Your task to perform on an android device: turn on the 12-hour format for clock Image 0: 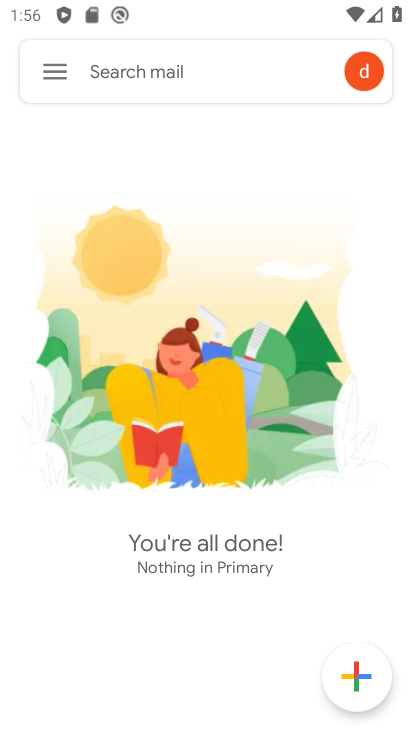
Step 0: press home button
Your task to perform on an android device: turn on the 12-hour format for clock Image 1: 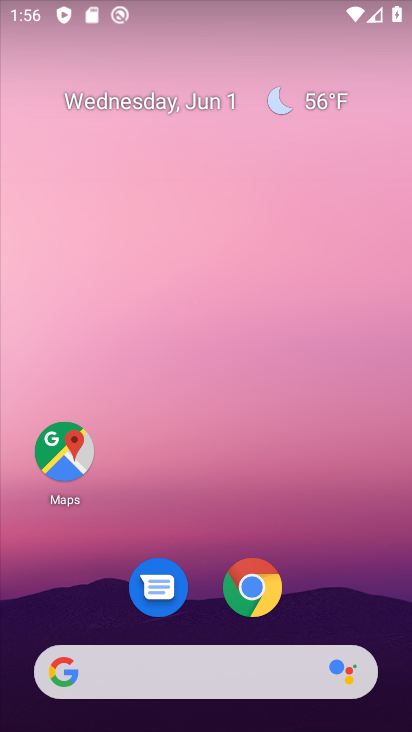
Step 1: drag from (335, 503) to (331, 92)
Your task to perform on an android device: turn on the 12-hour format for clock Image 2: 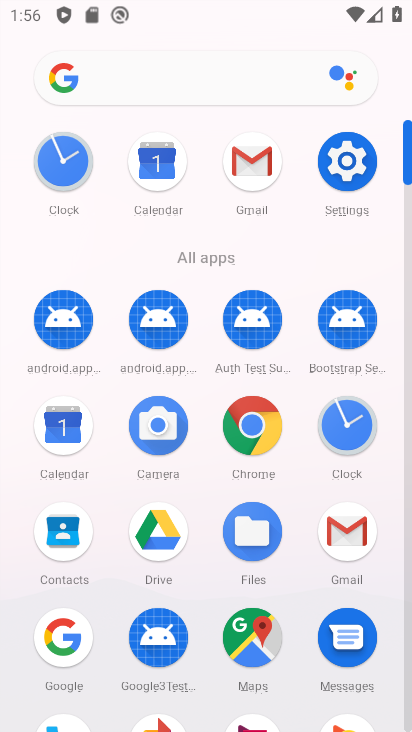
Step 2: click (59, 148)
Your task to perform on an android device: turn on the 12-hour format for clock Image 3: 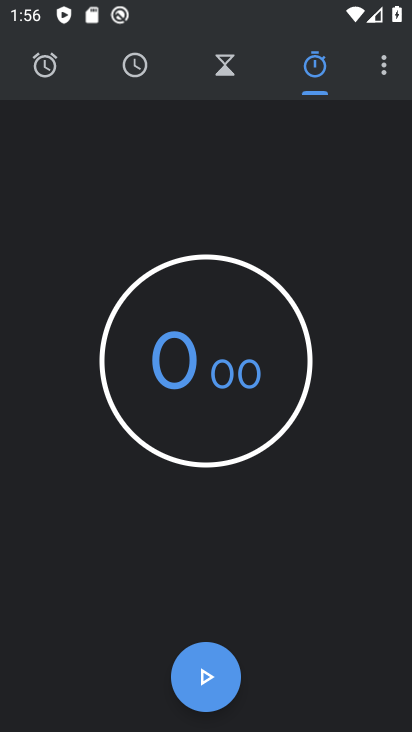
Step 3: click (387, 69)
Your task to perform on an android device: turn on the 12-hour format for clock Image 4: 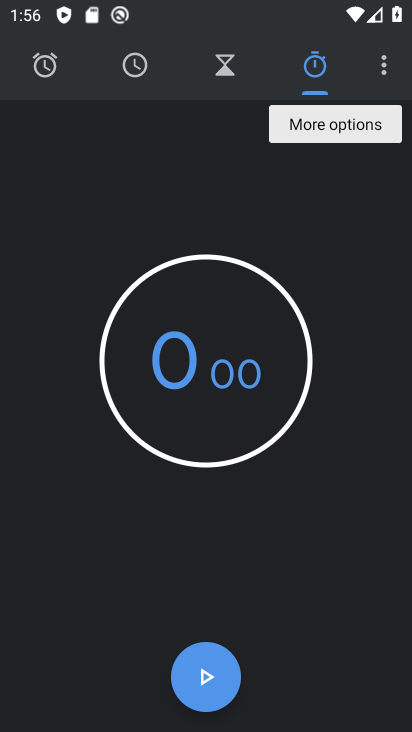
Step 4: click (387, 70)
Your task to perform on an android device: turn on the 12-hour format for clock Image 5: 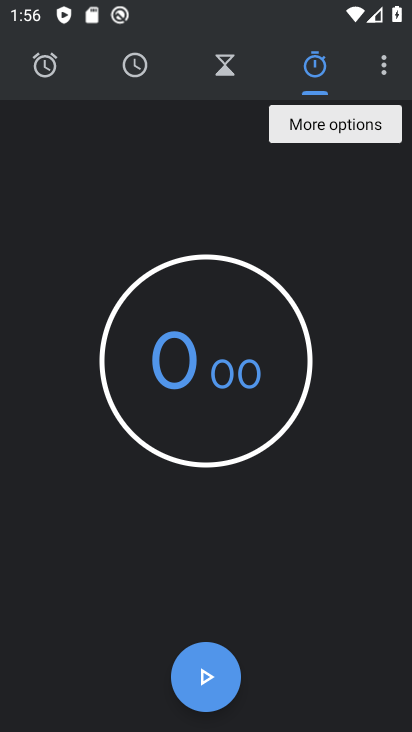
Step 5: click (353, 123)
Your task to perform on an android device: turn on the 12-hour format for clock Image 6: 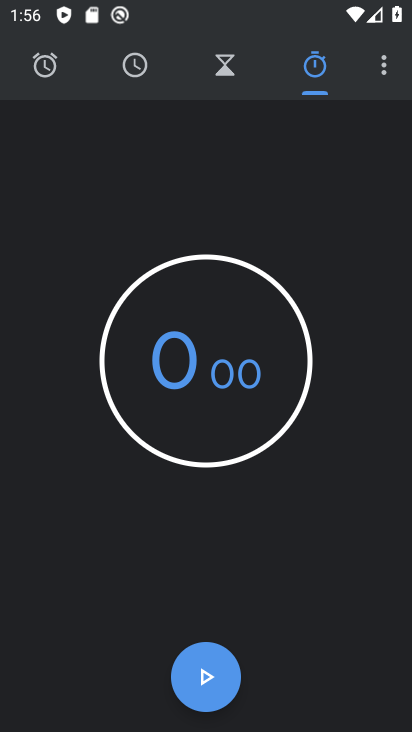
Step 6: click (388, 67)
Your task to perform on an android device: turn on the 12-hour format for clock Image 7: 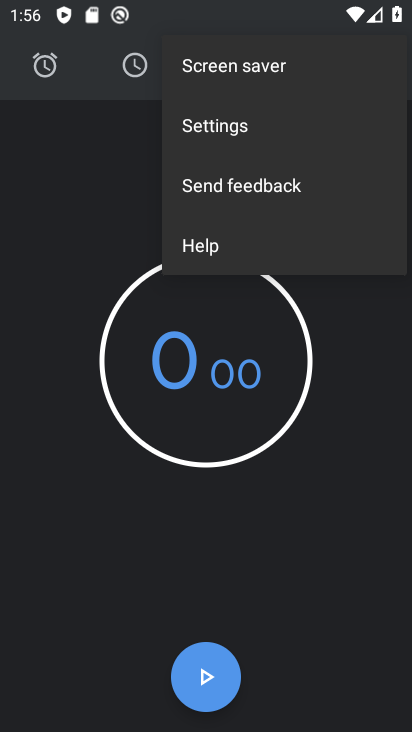
Step 7: click (243, 130)
Your task to perform on an android device: turn on the 12-hour format for clock Image 8: 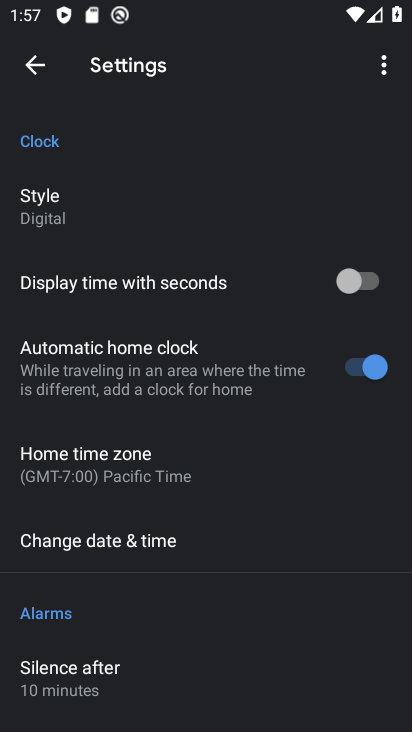
Step 8: click (177, 547)
Your task to perform on an android device: turn on the 12-hour format for clock Image 9: 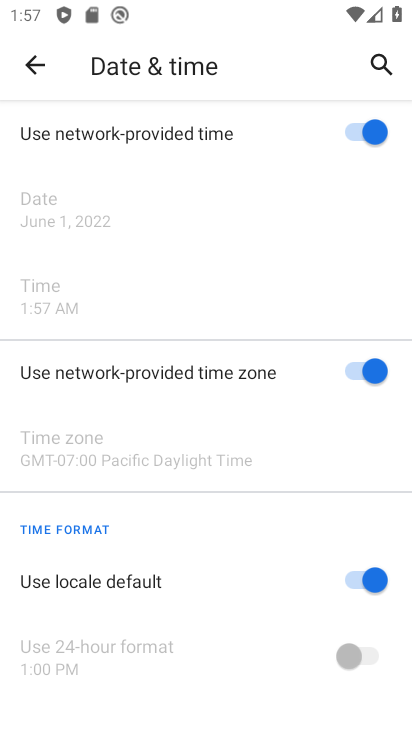
Step 9: task complete